Your task to perform on an android device: Search for Mexican restaurants on Maps Image 0: 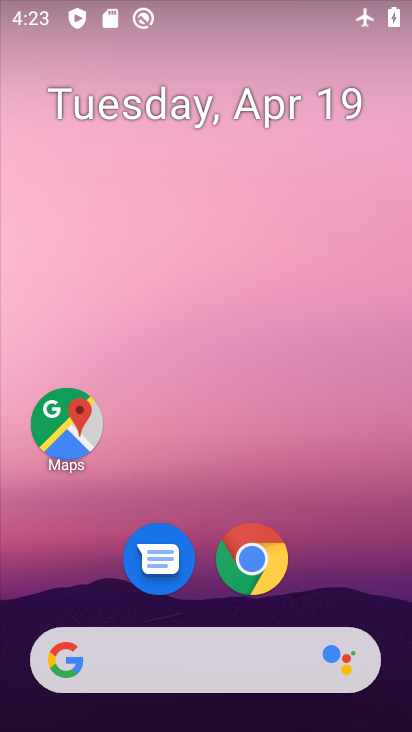
Step 0: click (74, 438)
Your task to perform on an android device: Search for Mexican restaurants on Maps Image 1: 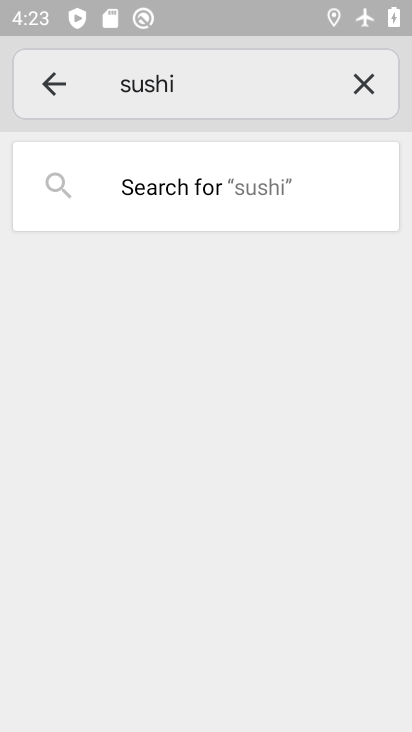
Step 1: task complete